Your task to perform on an android device: Show me the alarms in the clock app Image 0: 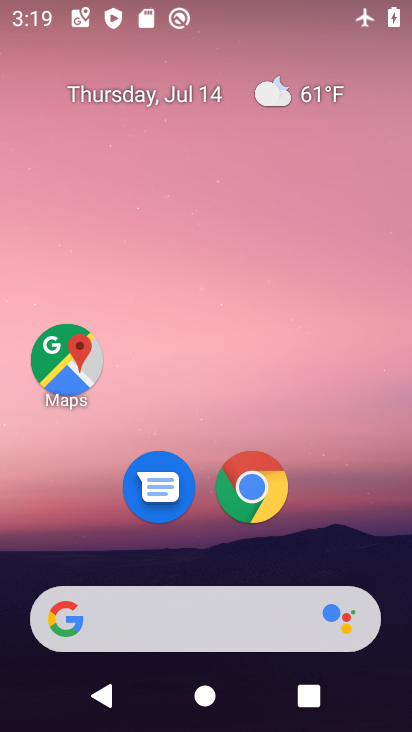
Step 0: drag from (211, 521) to (350, 3)
Your task to perform on an android device: Show me the alarms in the clock app Image 1: 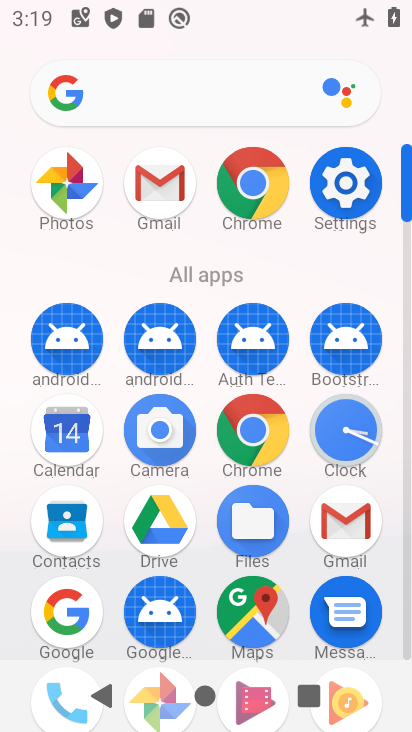
Step 1: click (332, 433)
Your task to perform on an android device: Show me the alarms in the clock app Image 2: 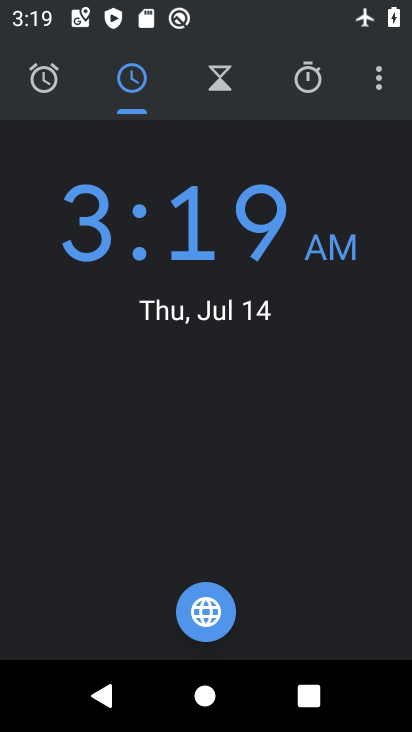
Step 2: click (56, 90)
Your task to perform on an android device: Show me the alarms in the clock app Image 3: 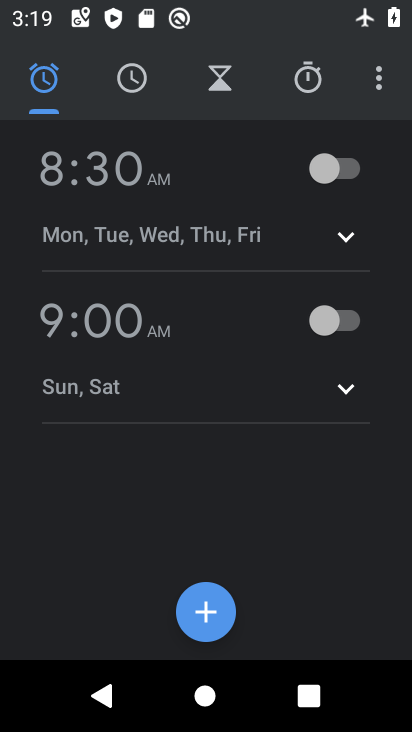
Step 3: task complete